Your task to perform on an android device: What is the news today? Image 0: 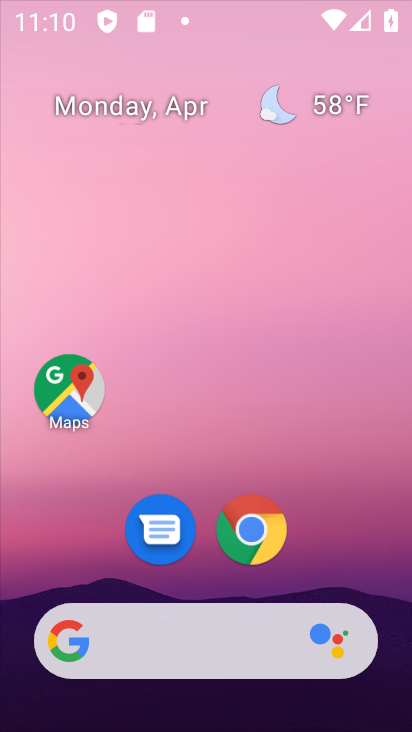
Step 0: drag from (373, 592) to (234, 61)
Your task to perform on an android device: What is the news today? Image 1: 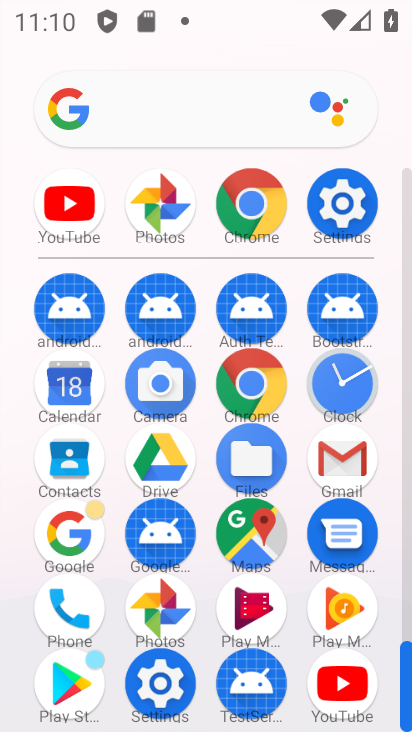
Step 1: click (269, 228)
Your task to perform on an android device: What is the news today? Image 2: 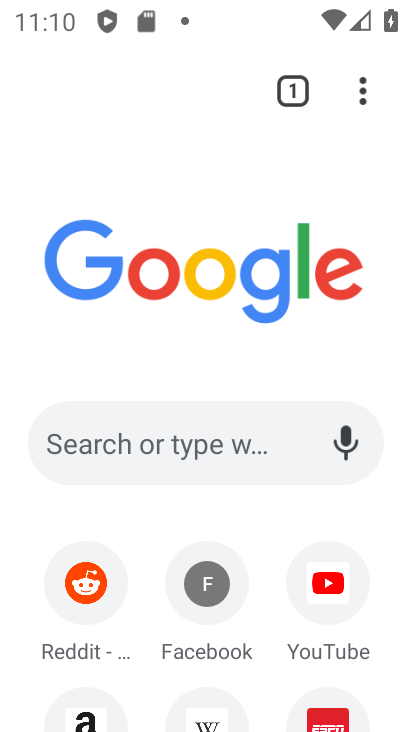
Step 2: click (365, 85)
Your task to perform on an android device: What is the news today? Image 3: 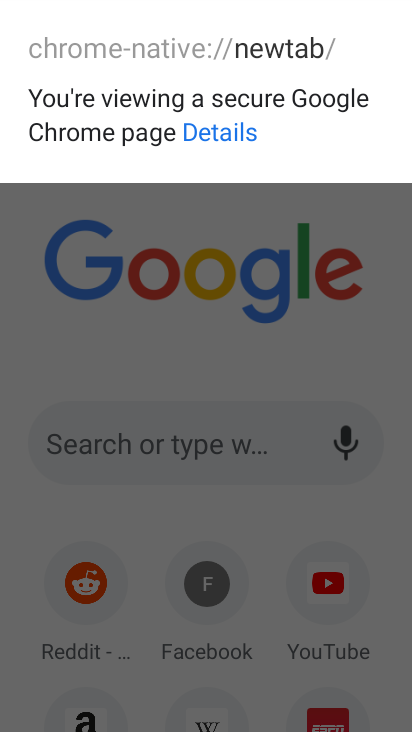
Step 3: click (357, 213)
Your task to perform on an android device: What is the news today? Image 4: 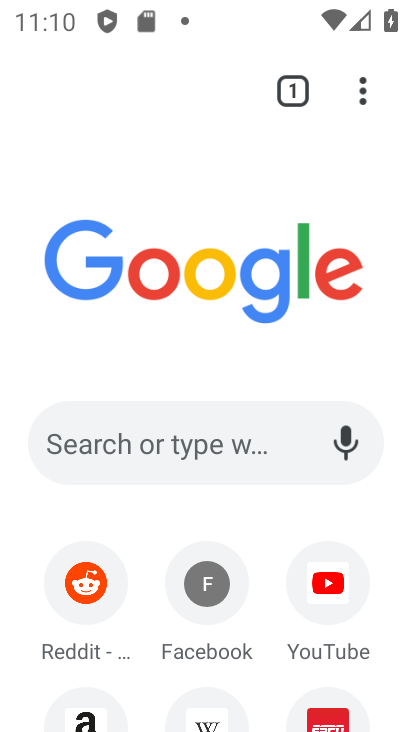
Step 4: click (355, 88)
Your task to perform on an android device: What is the news today? Image 5: 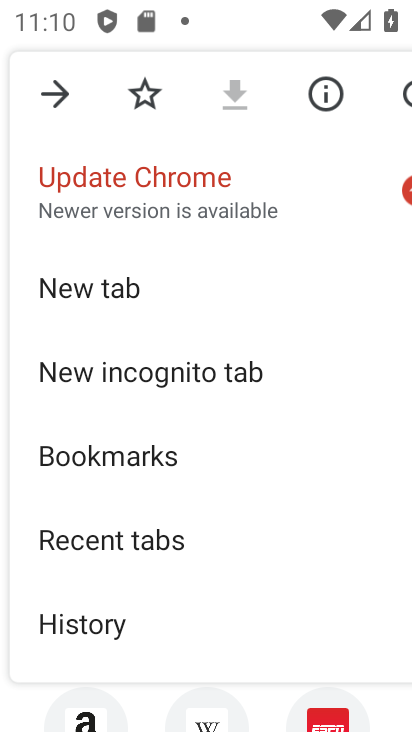
Step 5: drag from (164, 618) to (190, 315)
Your task to perform on an android device: What is the news today? Image 6: 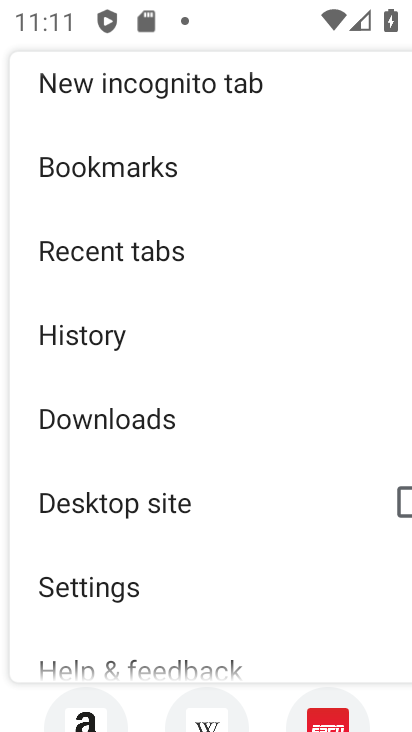
Step 6: press back button
Your task to perform on an android device: What is the news today? Image 7: 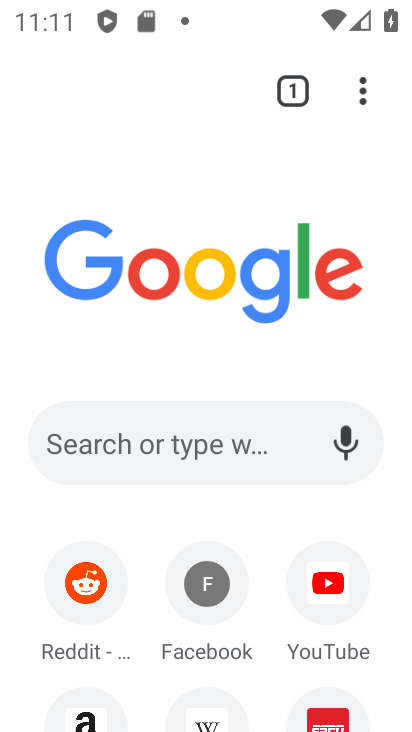
Step 7: drag from (131, 634) to (146, 80)
Your task to perform on an android device: What is the news today? Image 8: 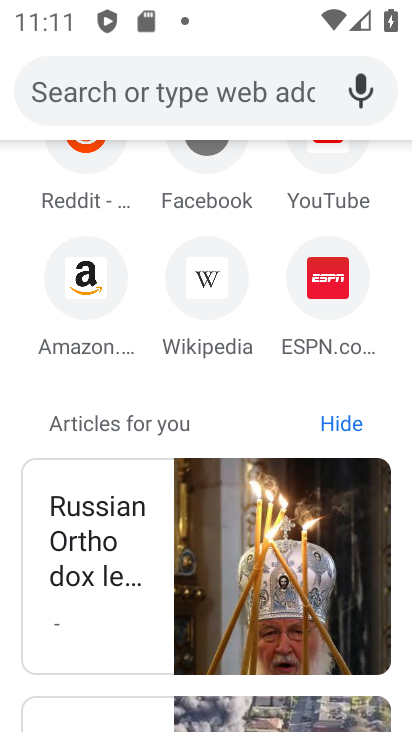
Step 8: click (89, 496)
Your task to perform on an android device: What is the news today? Image 9: 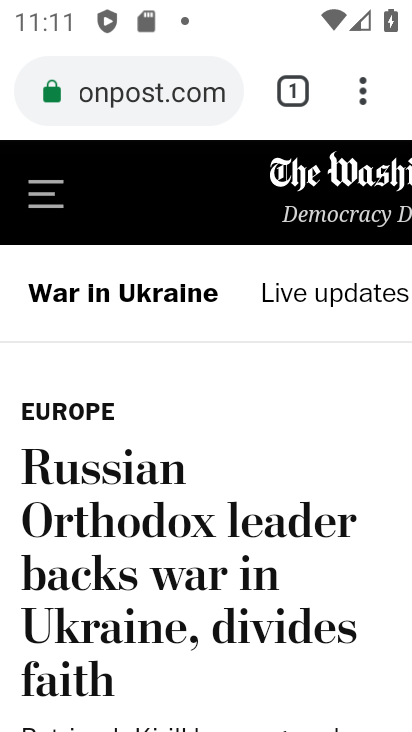
Step 9: task complete